Your task to perform on an android device: Go to network settings Image 0: 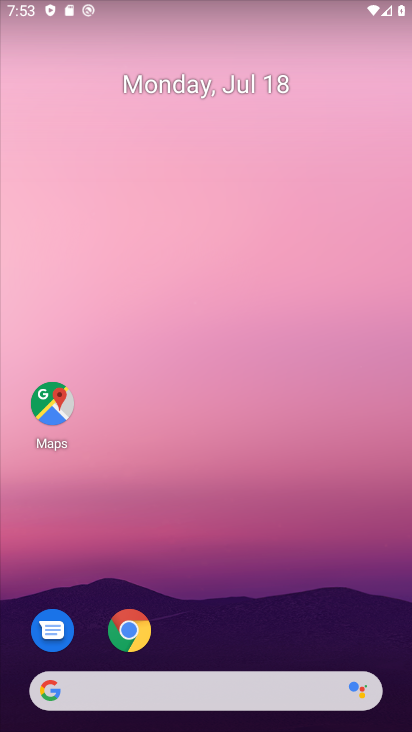
Step 0: drag from (386, 687) to (338, 5)
Your task to perform on an android device: Go to network settings Image 1: 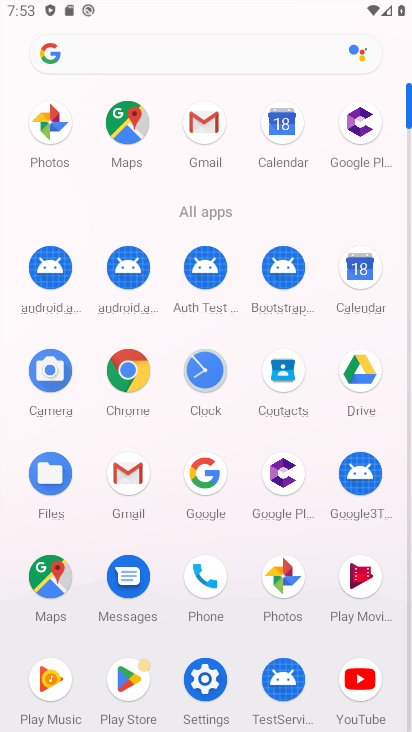
Step 1: drag from (202, 679) to (148, 393)
Your task to perform on an android device: Go to network settings Image 2: 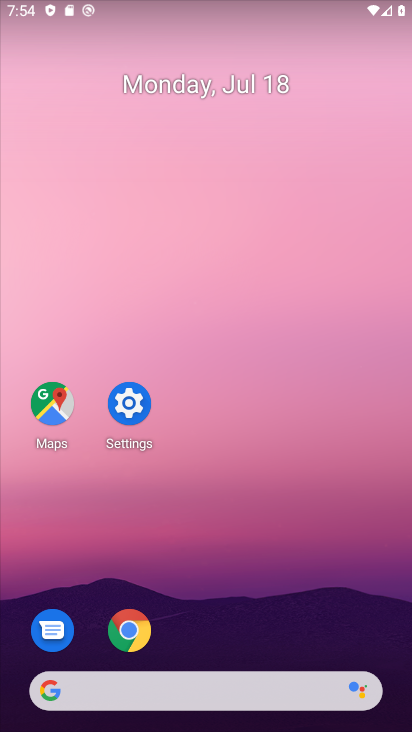
Step 2: click (122, 403)
Your task to perform on an android device: Go to network settings Image 3: 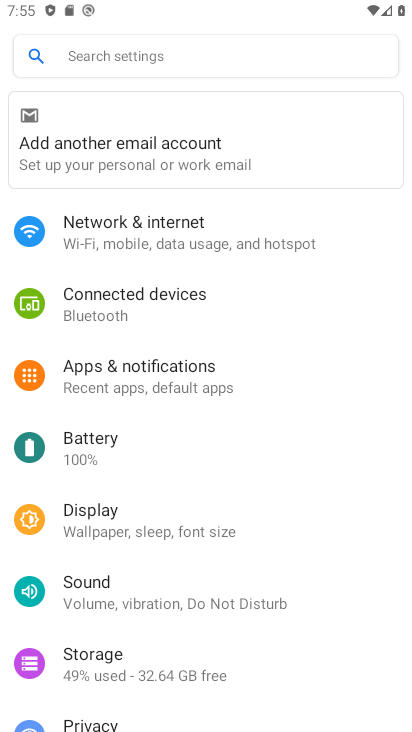
Step 3: click (152, 224)
Your task to perform on an android device: Go to network settings Image 4: 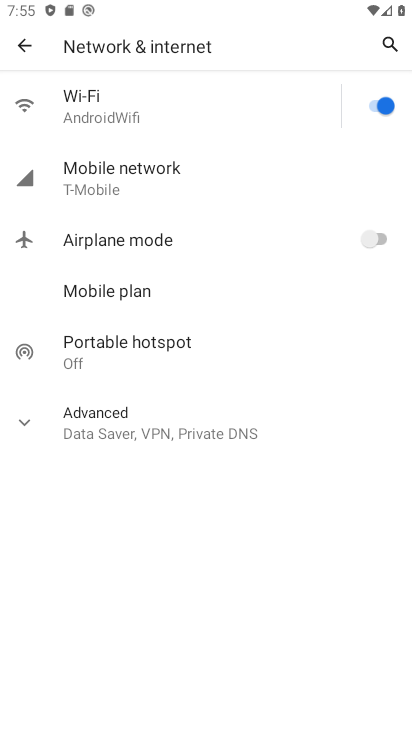
Step 4: click (17, 428)
Your task to perform on an android device: Go to network settings Image 5: 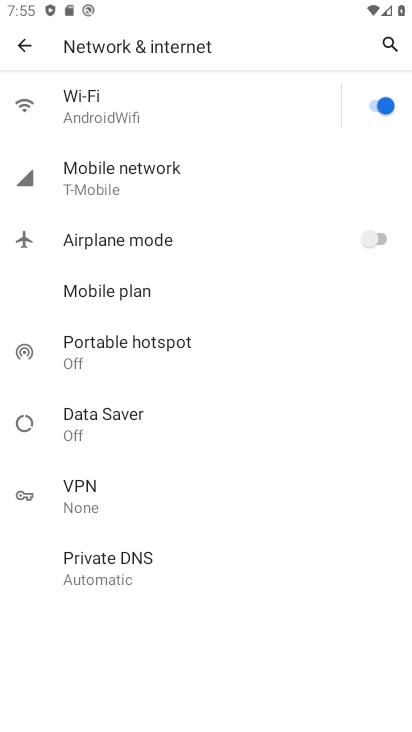
Step 5: click (138, 181)
Your task to perform on an android device: Go to network settings Image 6: 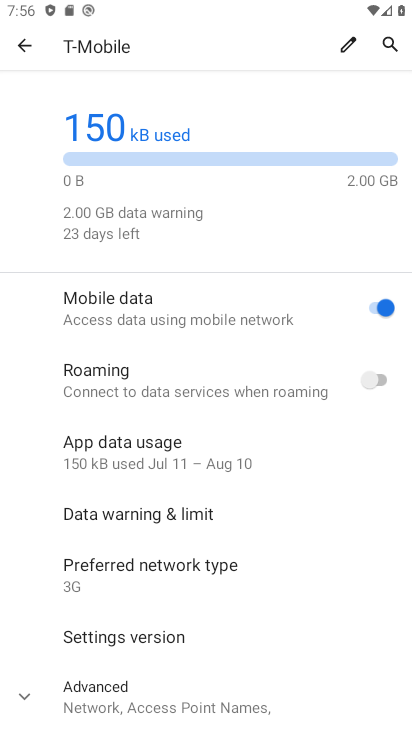
Step 6: click (17, 699)
Your task to perform on an android device: Go to network settings Image 7: 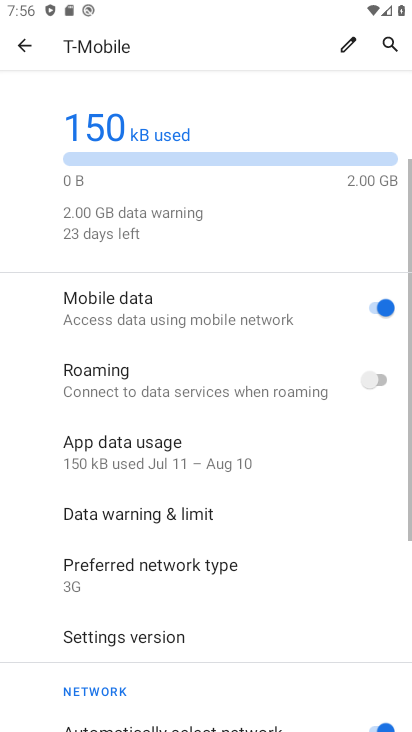
Step 7: task complete